Your task to perform on an android device: turn on airplane mode Image 0: 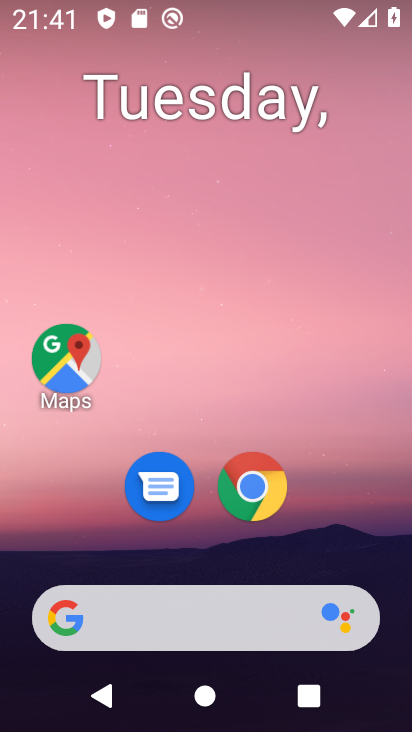
Step 0: drag from (380, 520) to (362, 147)
Your task to perform on an android device: turn on airplane mode Image 1: 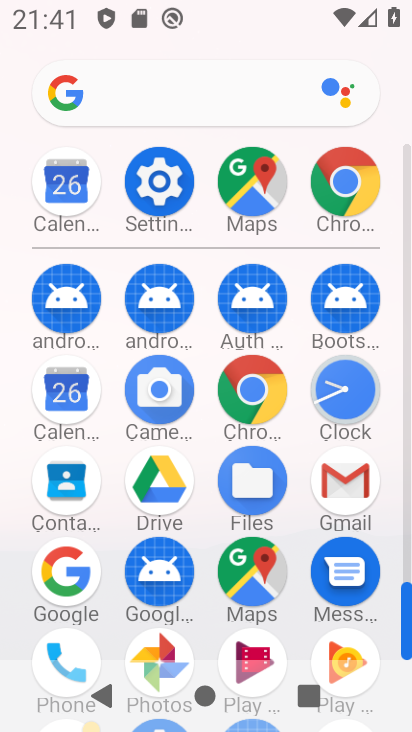
Step 1: click (160, 187)
Your task to perform on an android device: turn on airplane mode Image 2: 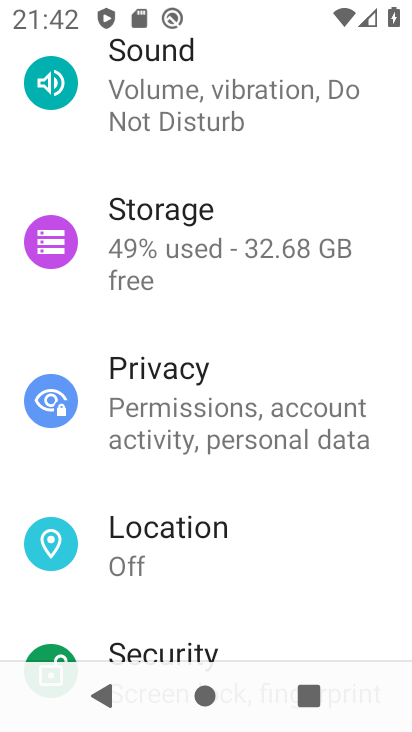
Step 2: drag from (334, 169) to (338, 260)
Your task to perform on an android device: turn on airplane mode Image 3: 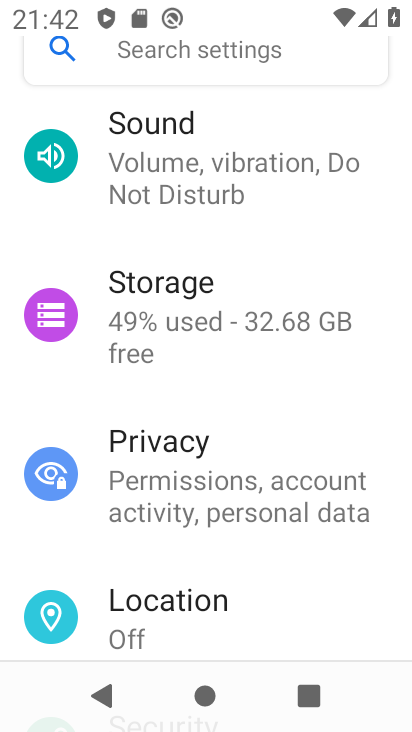
Step 3: drag from (357, 217) to (358, 307)
Your task to perform on an android device: turn on airplane mode Image 4: 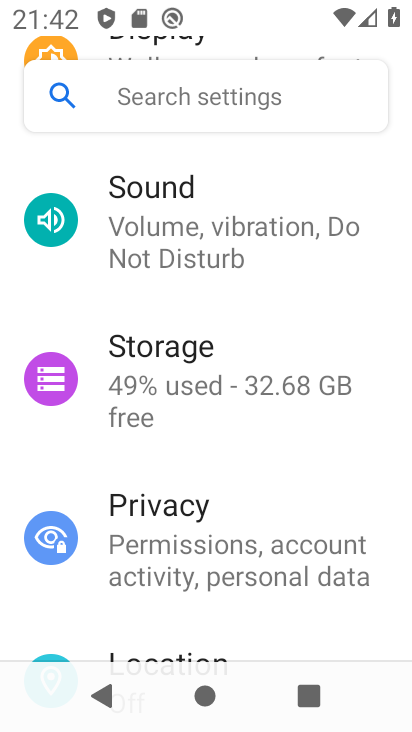
Step 4: drag from (374, 189) to (368, 309)
Your task to perform on an android device: turn on airplane mode Image 5: 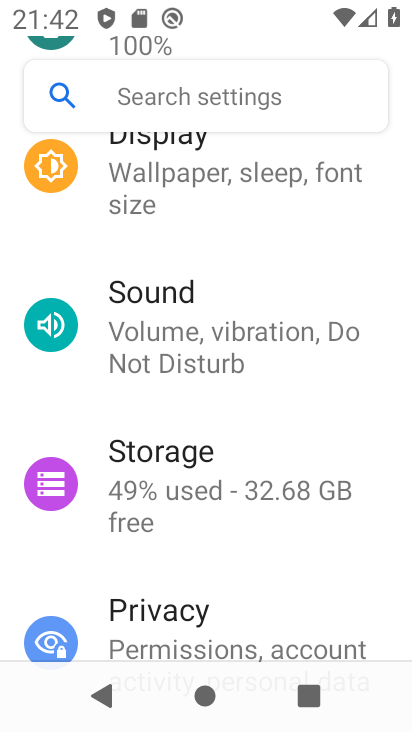
Step 5: drag from (368, 228) to (368, 333)
Your task to perform on an android device: turn on airplane mode Image 6: 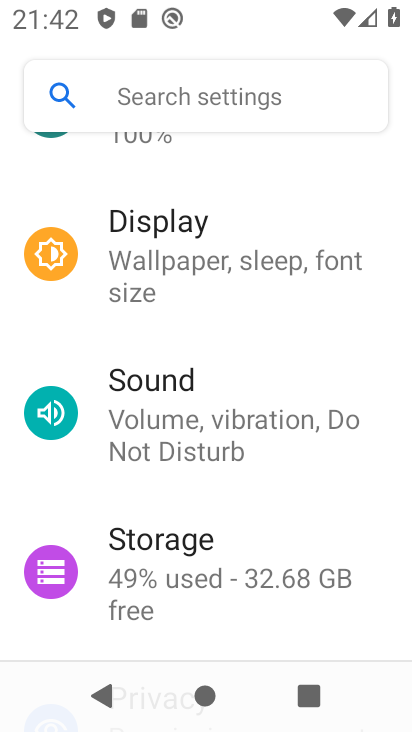
Step 6: drag from (368, 194) to (368, 309)
Your task to perform on an android device: turn on airplane mode Image 7: 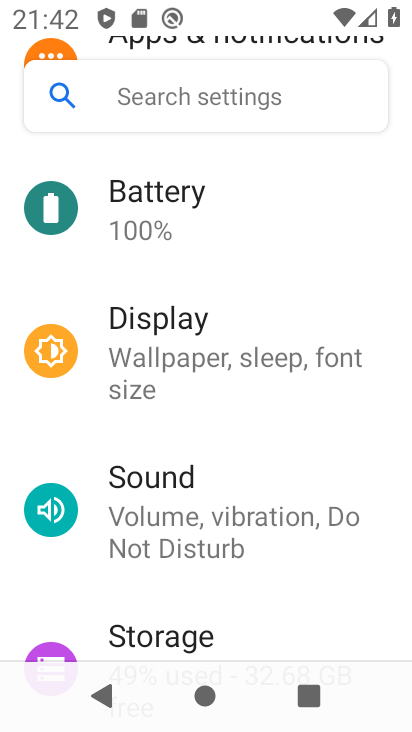
Step 7: drag from (375, 179) to (375, 284)
Your task to perform on an android device: turn on airplane mode Image 8: 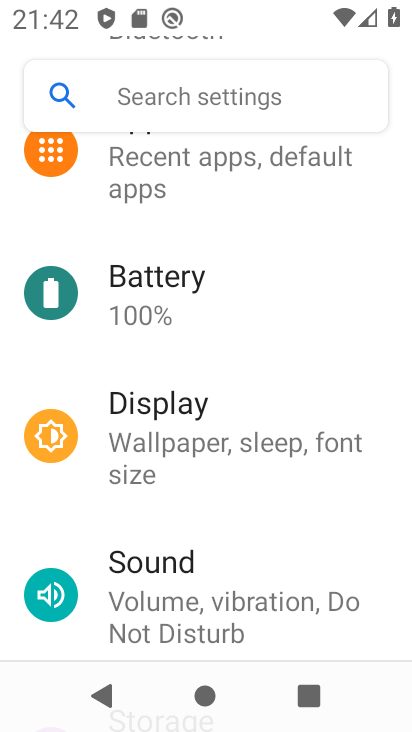
Step 8: drag from (371, 184) to (357, 305)
Your task to perform on an android device: turn on airplane mode Image 9: 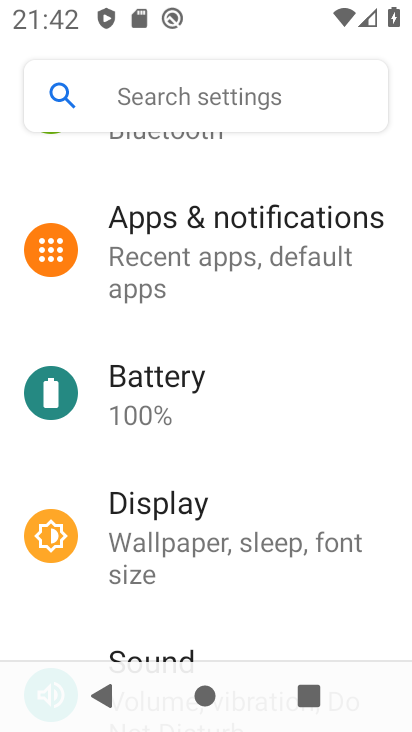
Step 9: drag from (357, 180) to (358, 318)
Your task to perform on an android device: turn on airplane mode Image 10: 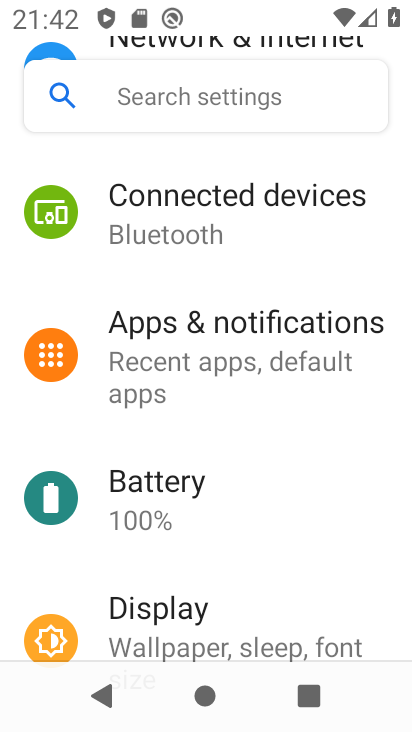
Step 10: drag from (377, 221) to (369, 326)
Your task to perform on an android device: turn on airplane mode Image 11: 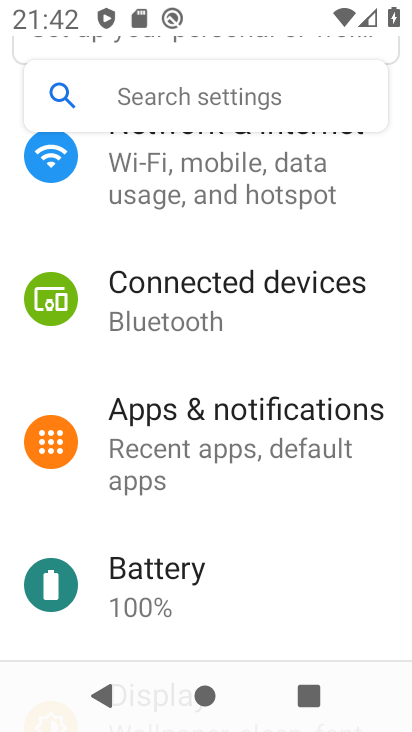
Step 11: drag from (369, 209) to (385, 590)
Your task to perform on an android device: turn on airplane mode Image 12: 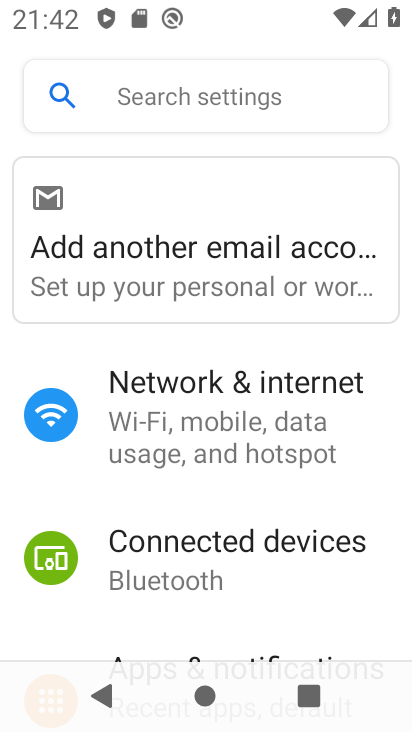
Step 12: click (285, 434)
Your task to perform on an android device: turn on airplane mode Image 13: 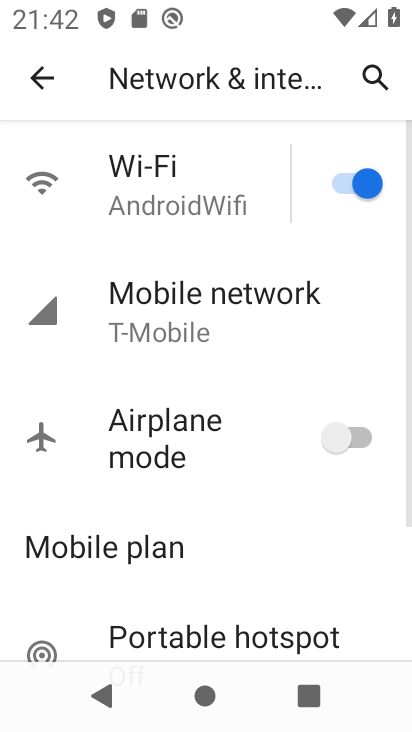
Step 13: click (338, 435)
Your task to perform on an android device: turn on airplane mode Image 14: 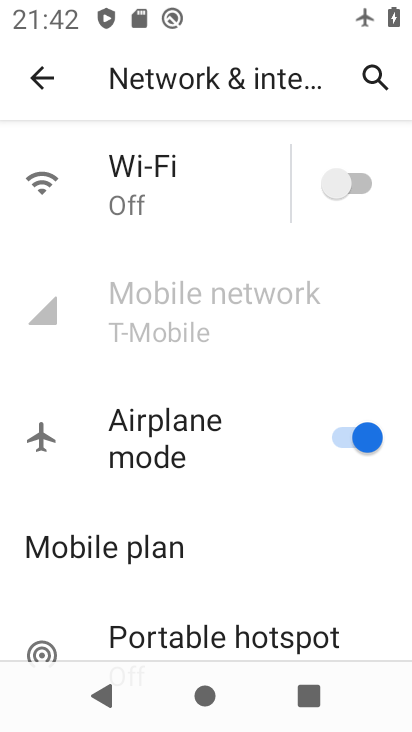
Step 14: task complete